Your task to perform on an android device: turn off location history Image 0: 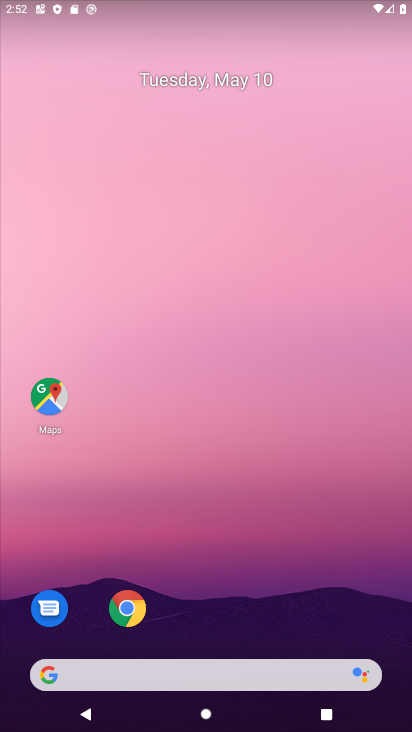
Step 0: drag from (259, 626) to (272, 15)
Your task to perform on an android device: turn off location history Image 1: 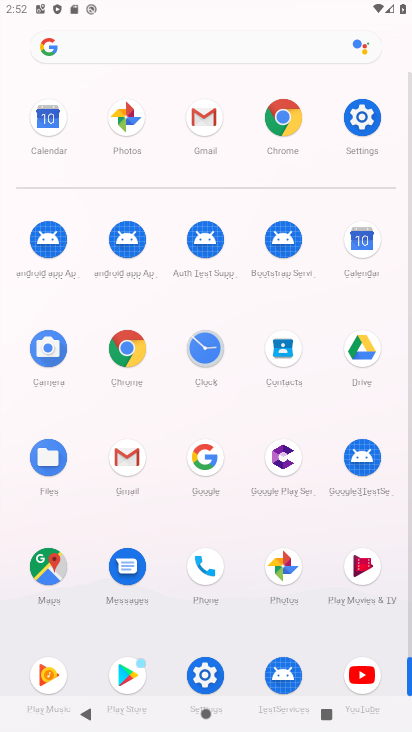
Step 1: click (362, 137)
Your task to perform on an android device: turn off location history Image 2: 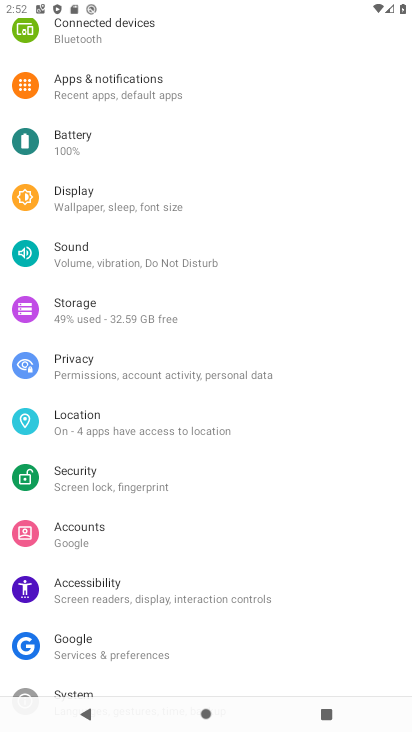
Step 2: click (131, 437)
Your task to perform on an android device: turn off location history Image 3: 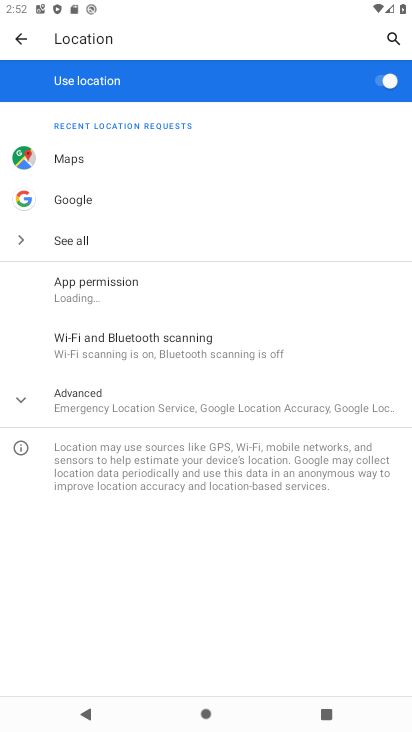
Step 3: click (106, 400)
Your task to perform on an android device: turn off location history Image 4: 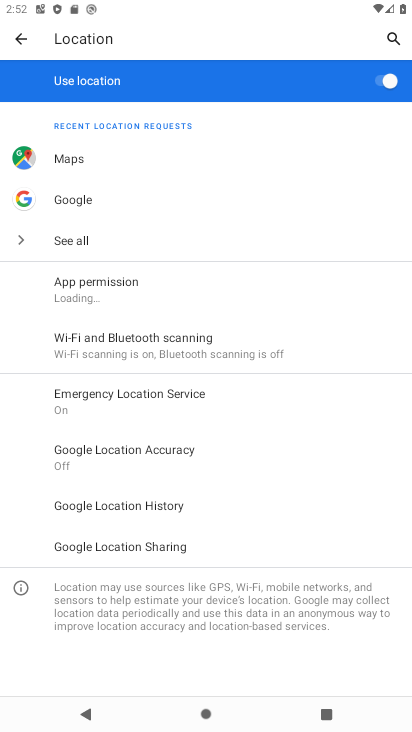
Step 4: click (148, 509)
Your task to perform on an android device: turn off location history Image 5: 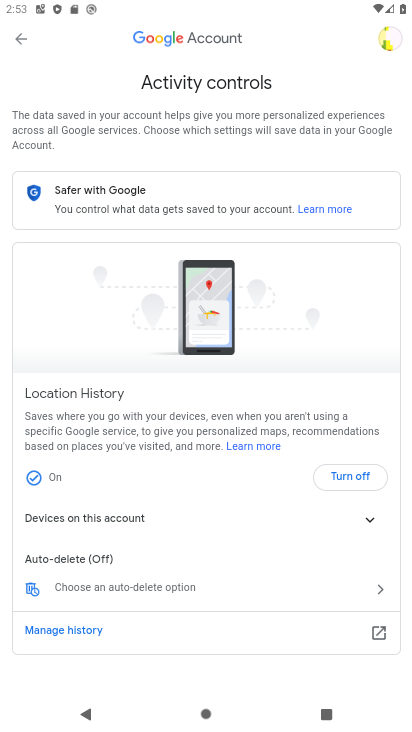
Step 5: click (335, 478)
Your task to perform on an android device: turn off location history Image 6: 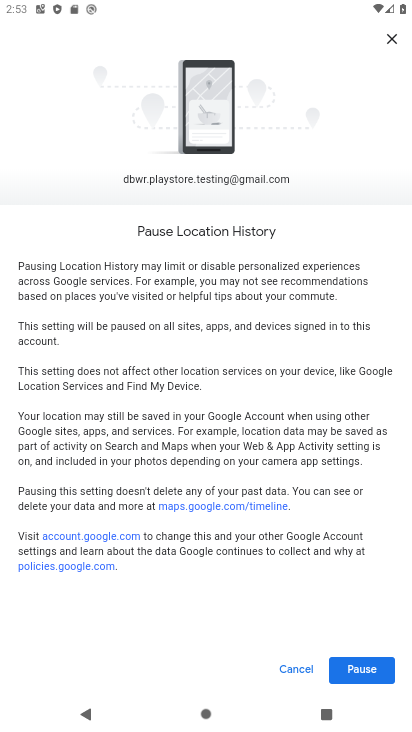
Step 6: click (371, 666)
Your task to perform on an android device: turn off location history Image 7: 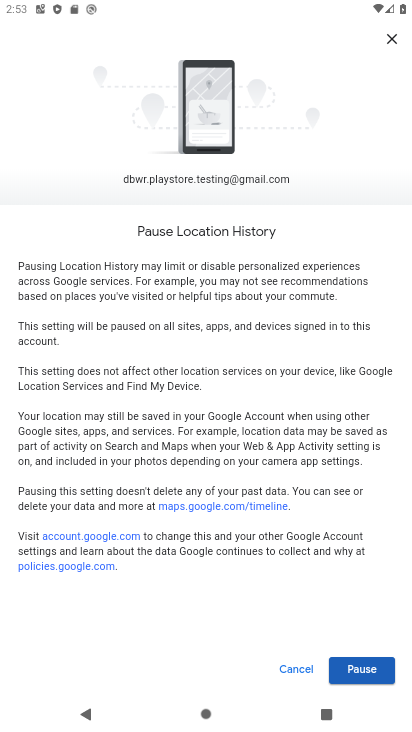
Step 7: click (362, 683)
Your task to perform on an android device: turn off location history Image 8: 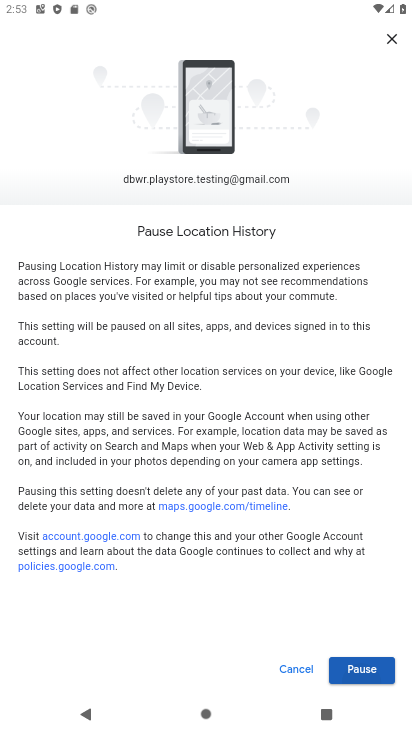
Step 8: click (365, 675)
Your task to perform on an android device: turn off location history Image 9: 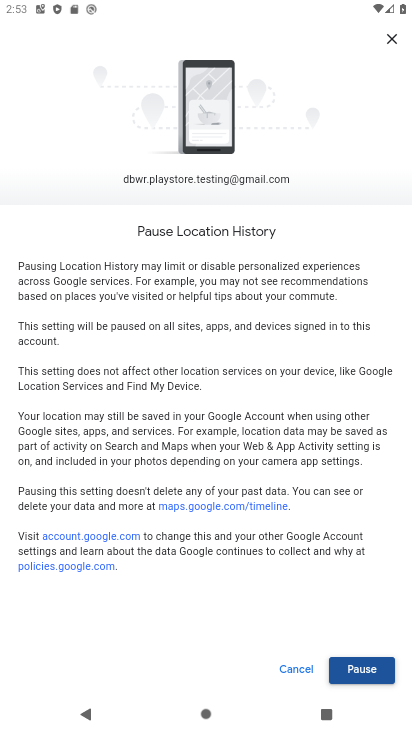
Step 9: click (365, 670)
Your task to perform on an android device: turn off location history Image 10: 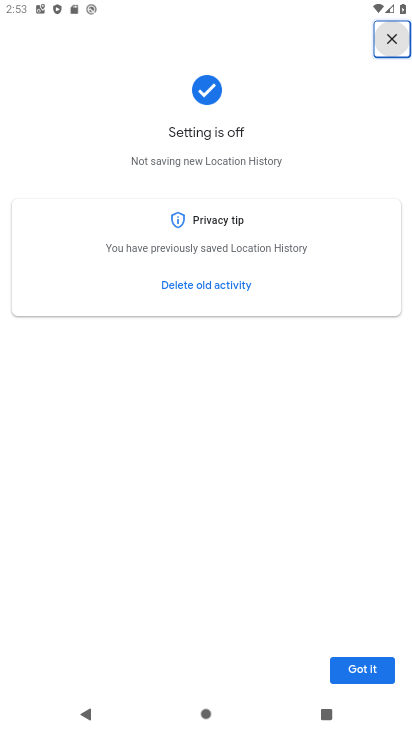
Step 10: click (365, 668)
Your task to perform on an android device: turn off location history Image 11: 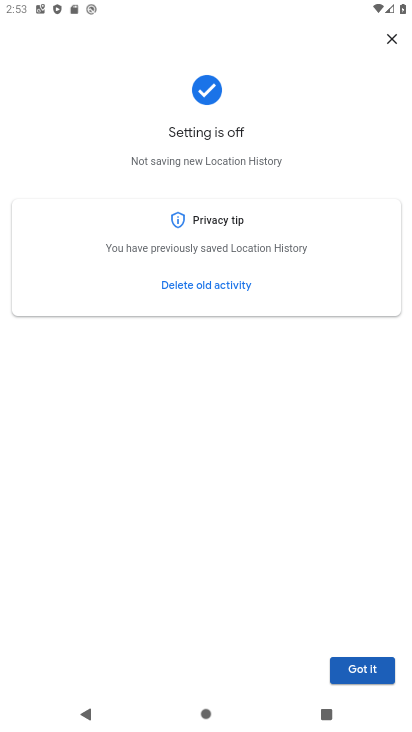
Step 11: click (374, 667)
Your task to perform on an android device: turn off location history Image 12: 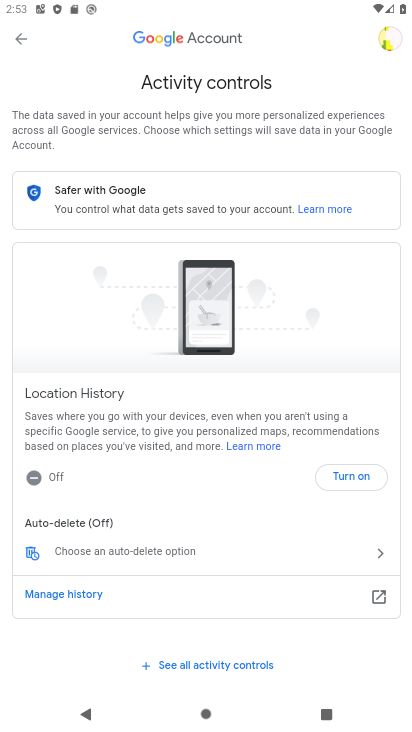
Step 12: task complete